Your task to perform on an android device: open the mobile data screen to see how much data has been used Image 0: 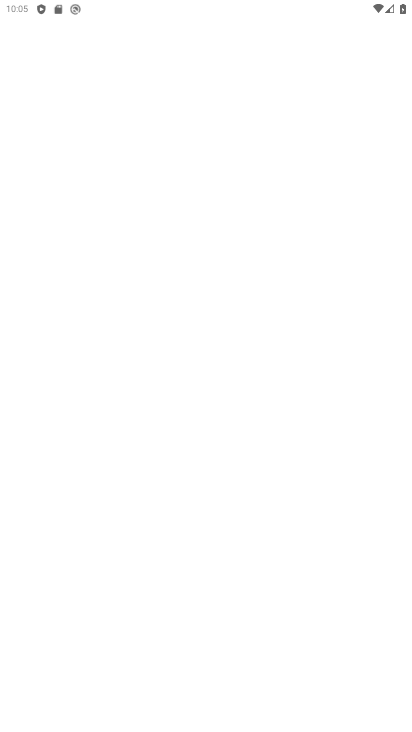
Step 0: press home button
Your task to perform on an android device: open the mobile data screen to see how much data has been used Image 1: 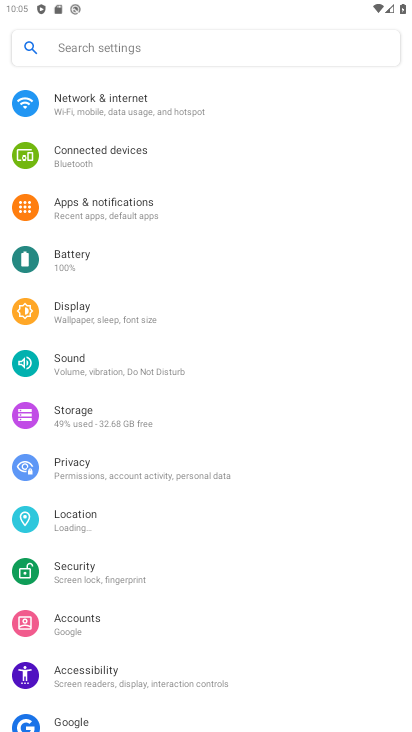
Step 1: press home button
Your task to perform on an android device: open the mobile data screen to see how much data has been used Image 2: 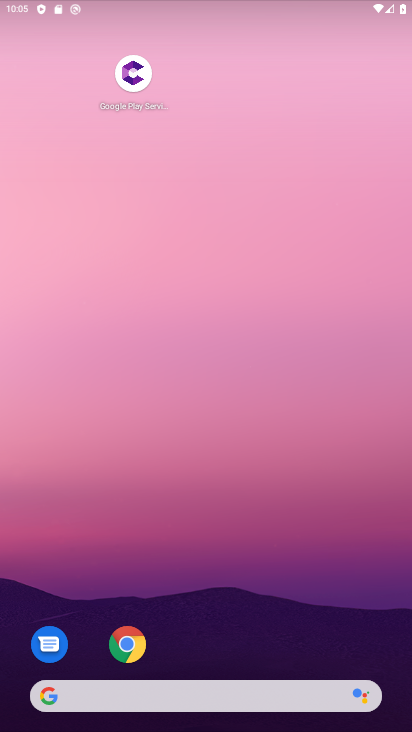
Step 2: press home button
Your task to perform on an android device: open the mobile data screen to see how much data has been used Image 3: 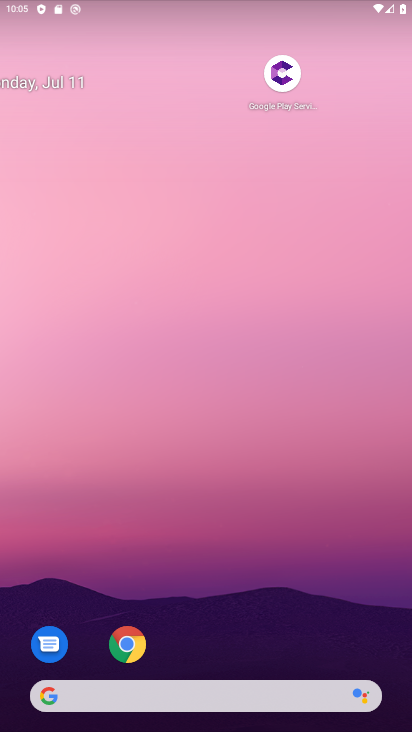
Step 3: drag from (285, 394) to (225, 700)
Your task to perform on an android device: open the mobile data screen to see how much data has been used Image 4: 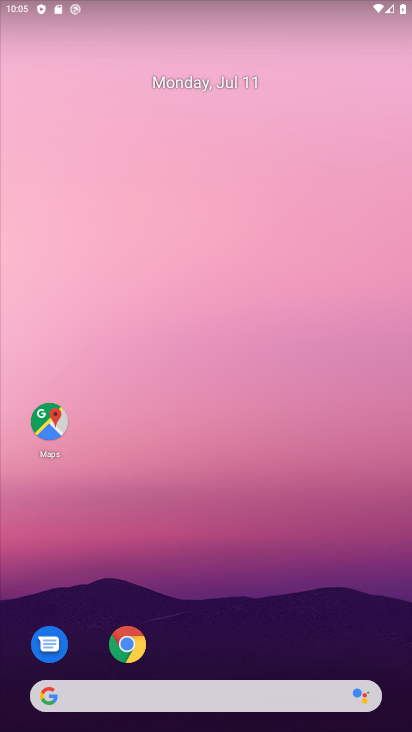
Step 4: drag from (381, 5) to (54, 711)
Your task to perform on an android device: open the mobile data screen to see how much data has been used Image 5: 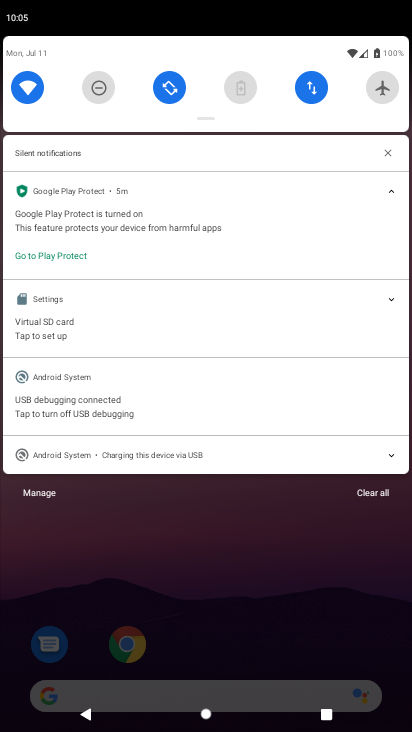
Step 5: click (320, 73)
Your task to perform on an android device: open the mobile data screen to see how much data has been used Image 6: 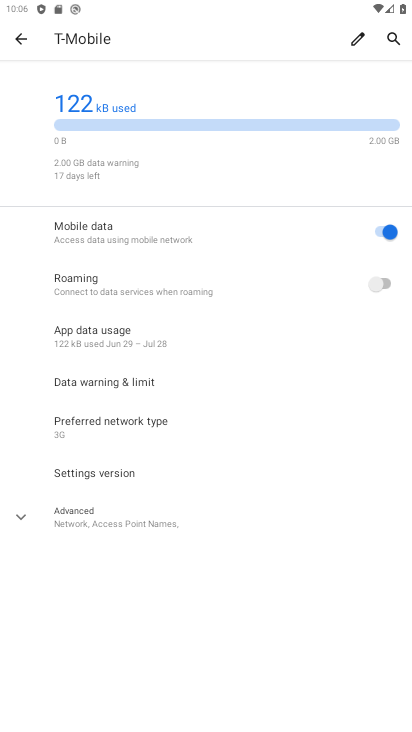
Step 6: task complete